Your task to perform on an android device: show emergency info Image 0: 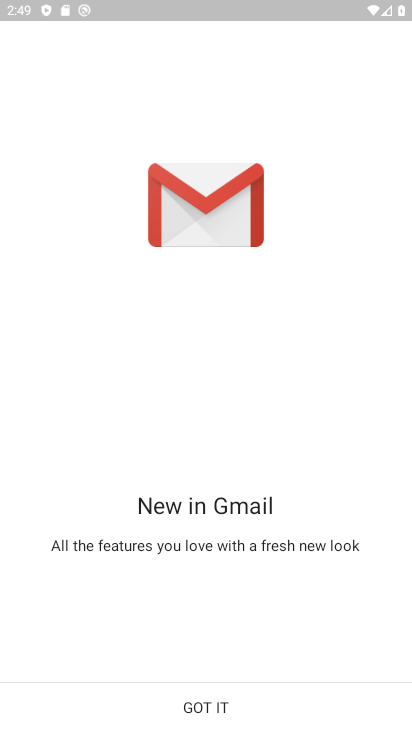
Step 0: press home button
Your task to perform on an android device: show emergency info Image 1: 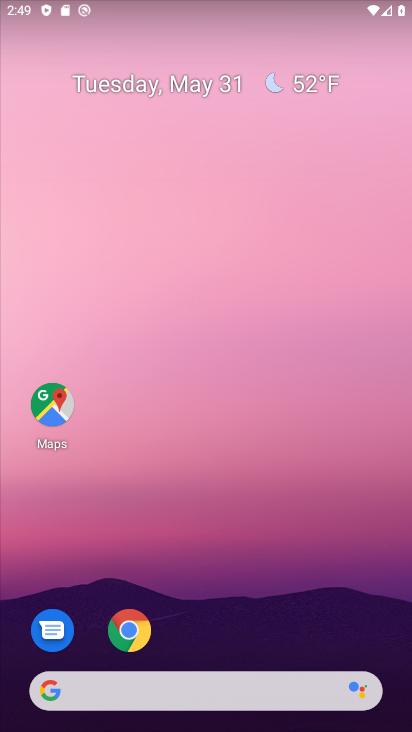
Step 1: drag from (287, 635) to (280, 45)
Your task to perform on an android device: show emergency info Image 2: 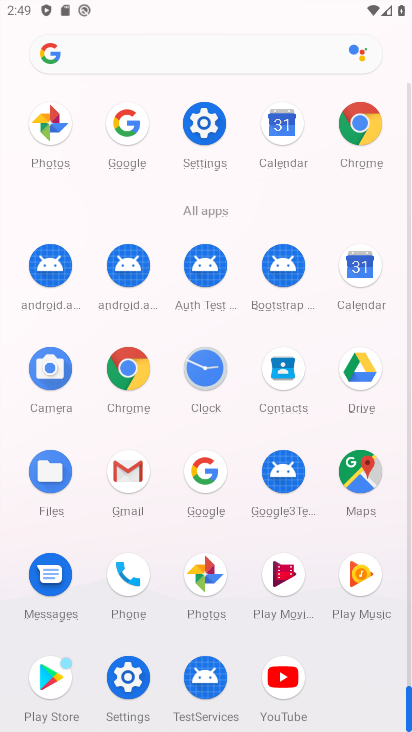
Step 2: click (129, 683)
Your task to perform on an android device: show emergency info Image 3: 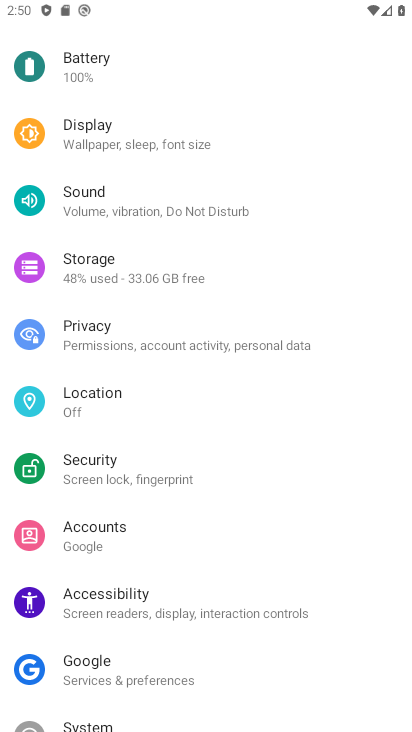
Step 3: drag from (196, 565) to (197, 295)
Your task to perform on an android device: show emergency info Image 4: 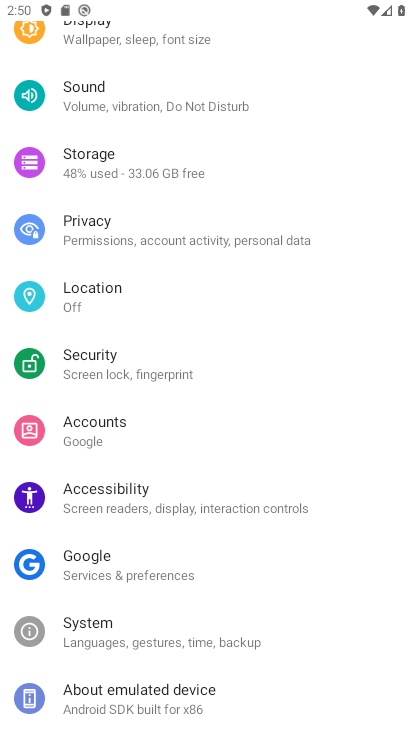
Step 4: drag from (188, 696) to (201, 439)
Your task to perform on an android device: show emergency info Image 5: 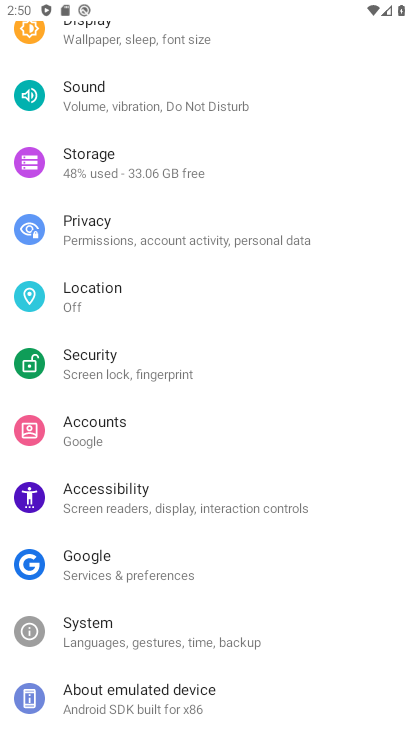
Step 5: click (87, 706)
Your task to perform on an android device: show emergency info Image 6: 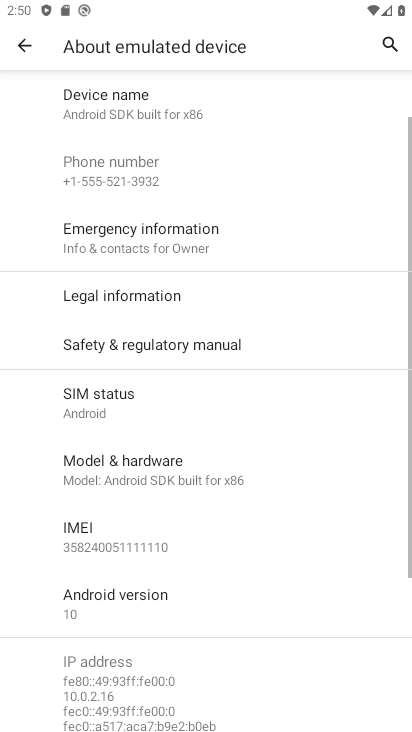
Step 6: click (179, 243)
Your task to perform on an android device: show emergency info Image 7: 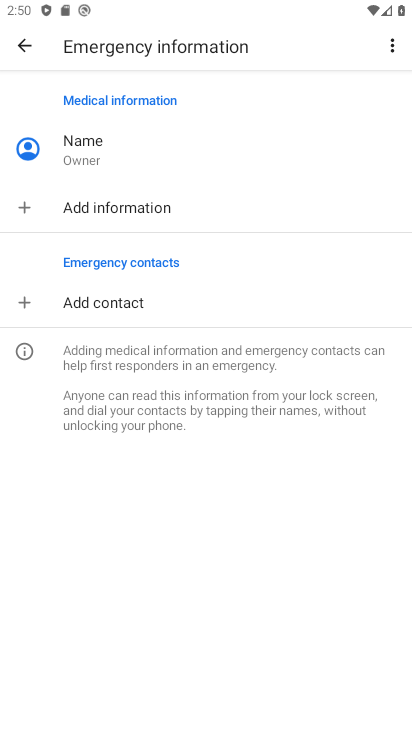
Step 7: task complete